Your task to perform on an android device: install app "DoorDash - Food Delivery" Image 0: 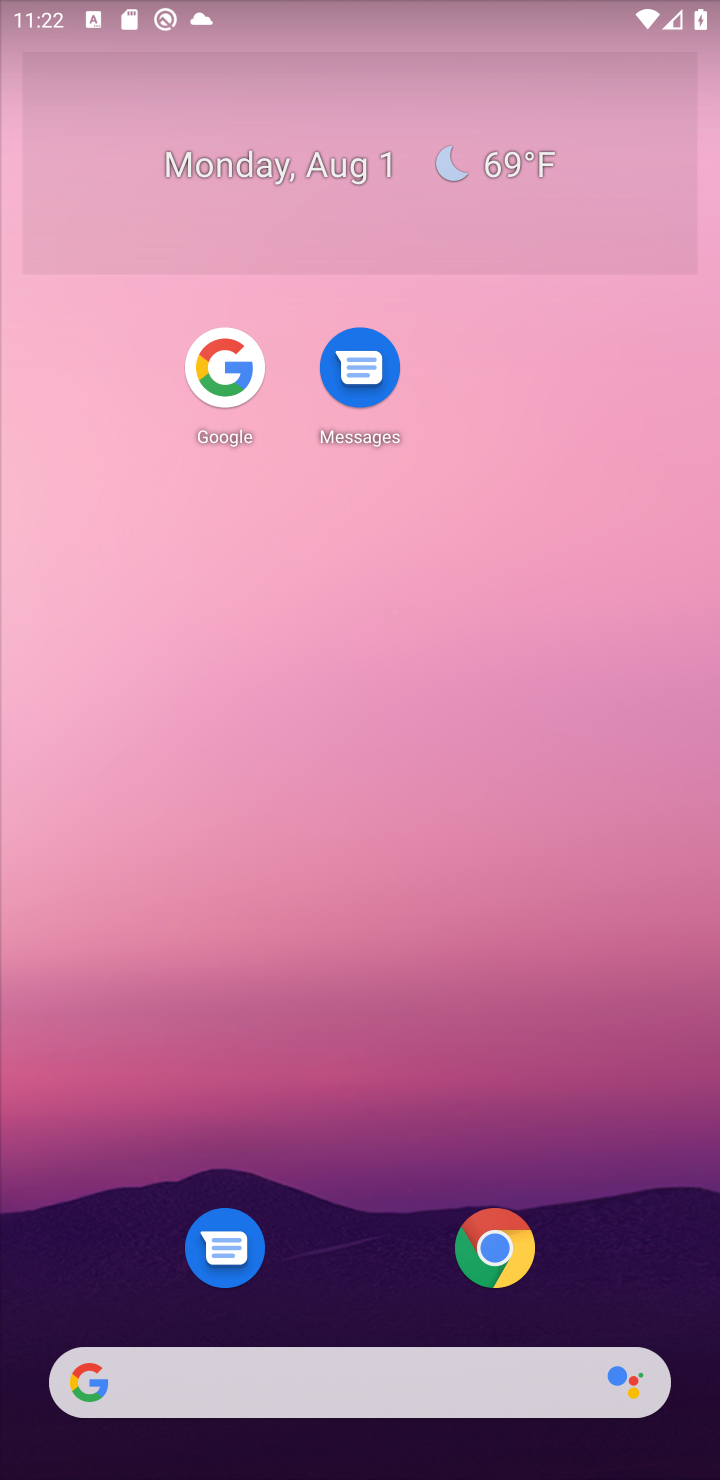
Step 0: drag from (399, 1147) to (600, 371)
Your task to perform on an android device: install app "DoorDash - Food Delivery" Image 1: 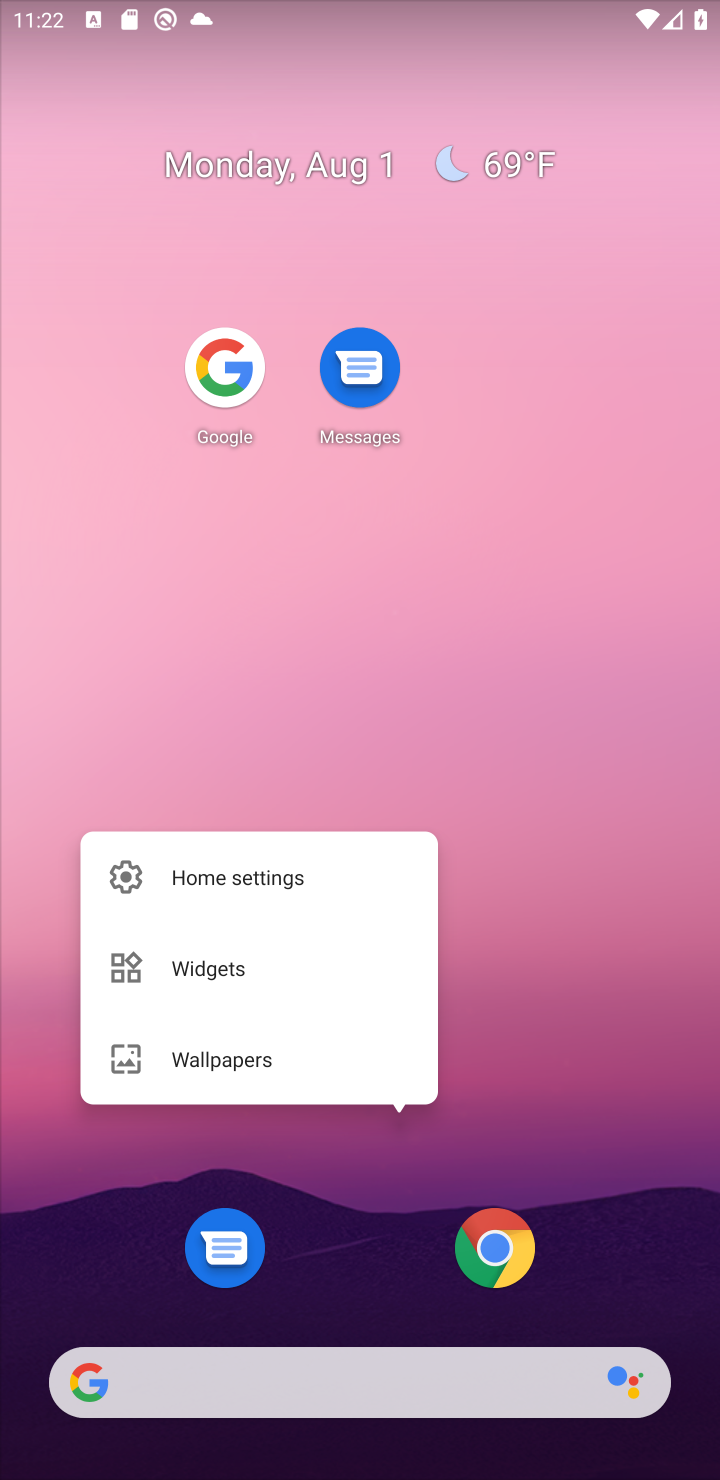
Step 1: click (531, 973)
Your task to perform on an android device: install app "DoorDash - Food Delivery" Image 2: 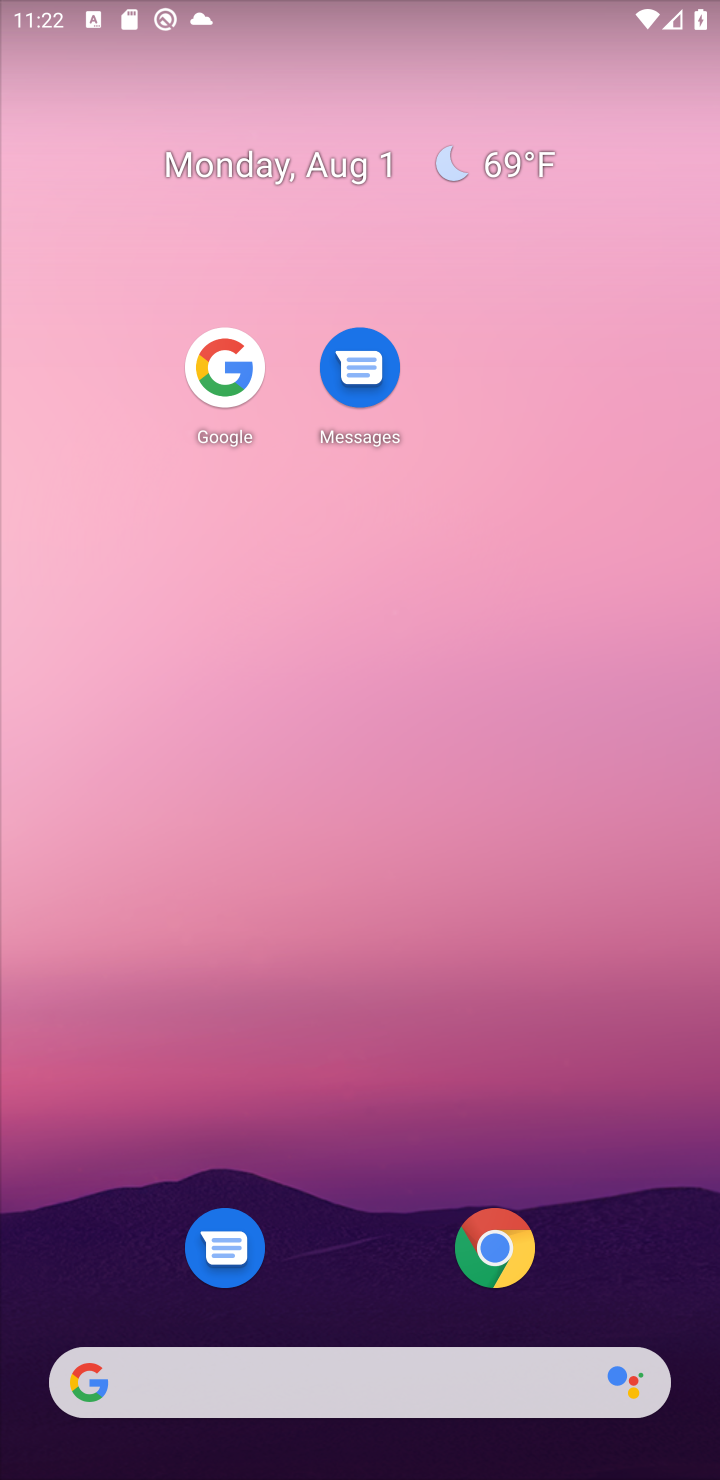
Step 2: drag from (353, 1120) to (367, 295)
Your task to perform on an android device: install app "DoorDash - Food Delivery" Image 3: 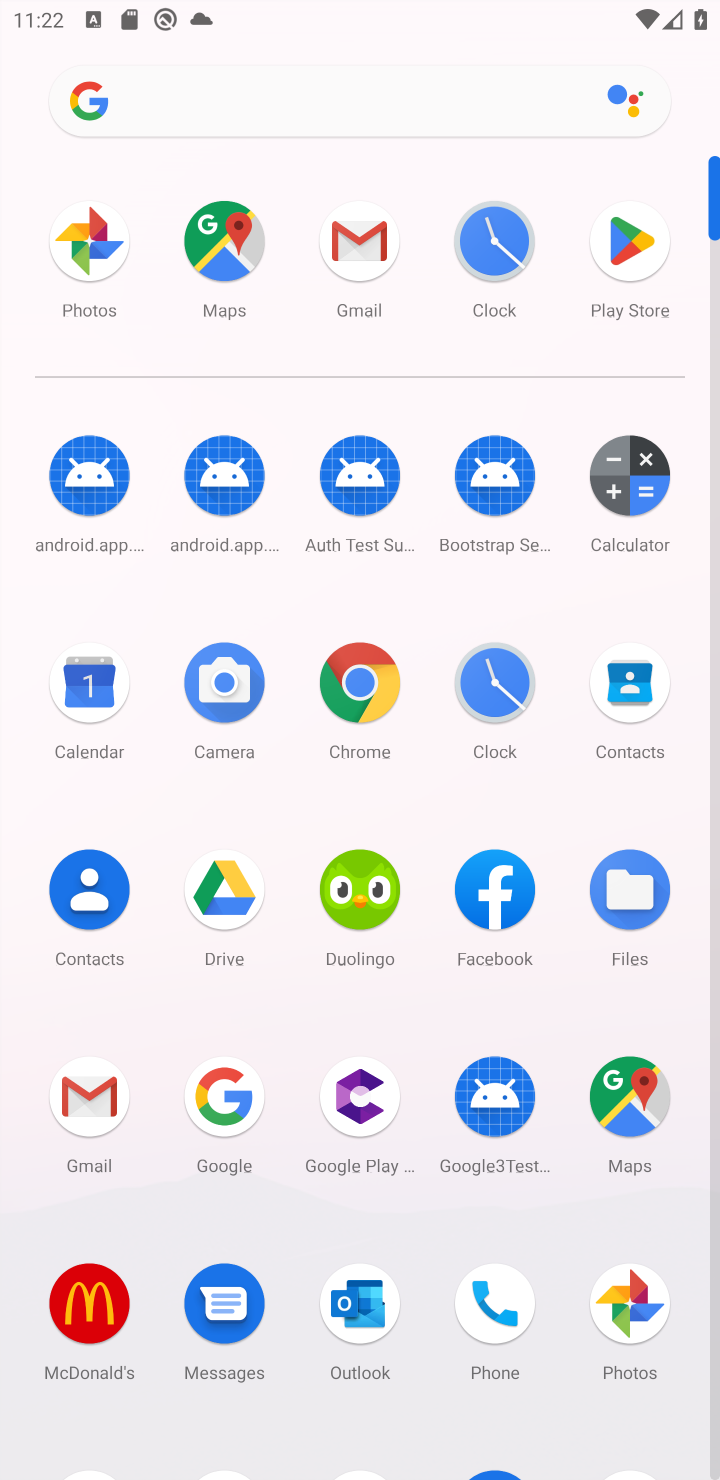
Step 3: drag from (282, 1247) to (310, 510)
Your task to perform on an android device: install app "DoorDash - Food Delivery" Image 4: 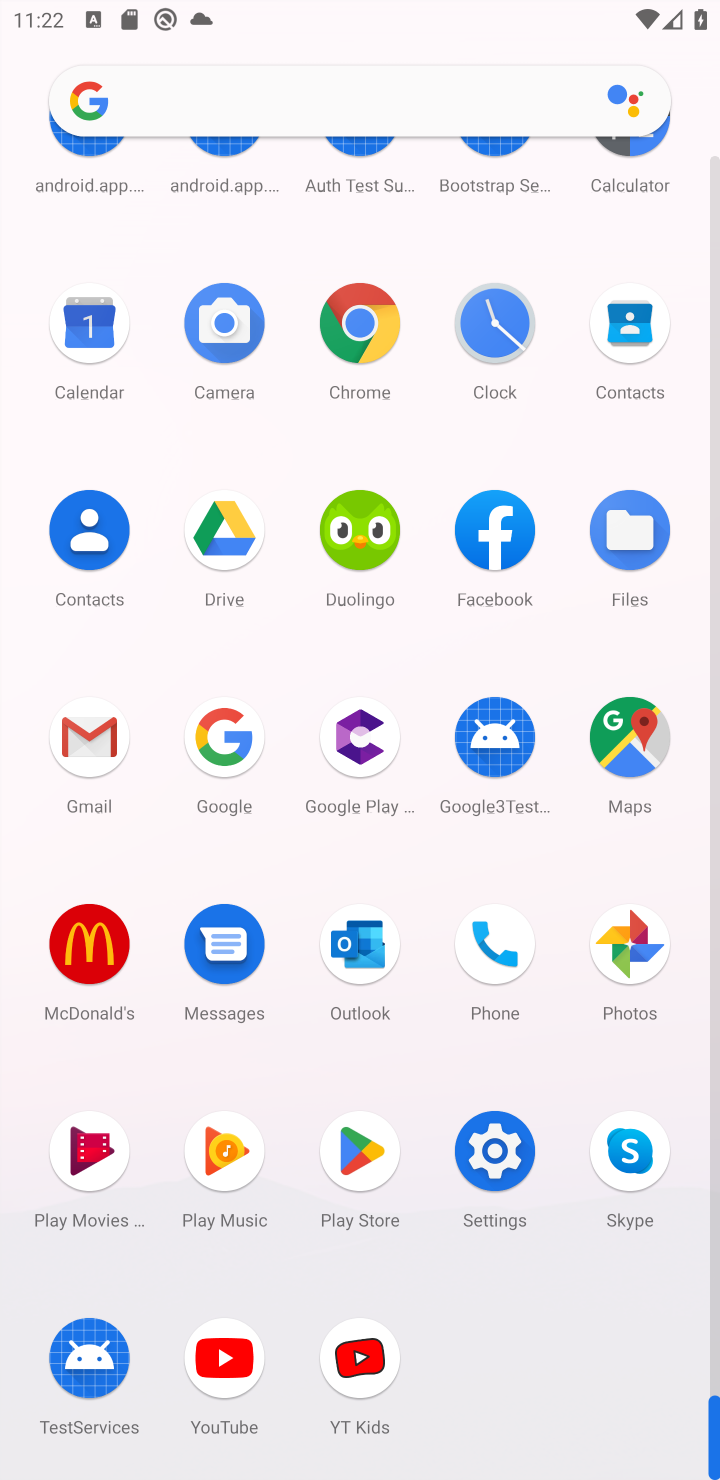
Step 4: click (355, 1154)
Your task to perform on an android device: install app "DoorDash - Food Delivery" Image 5: 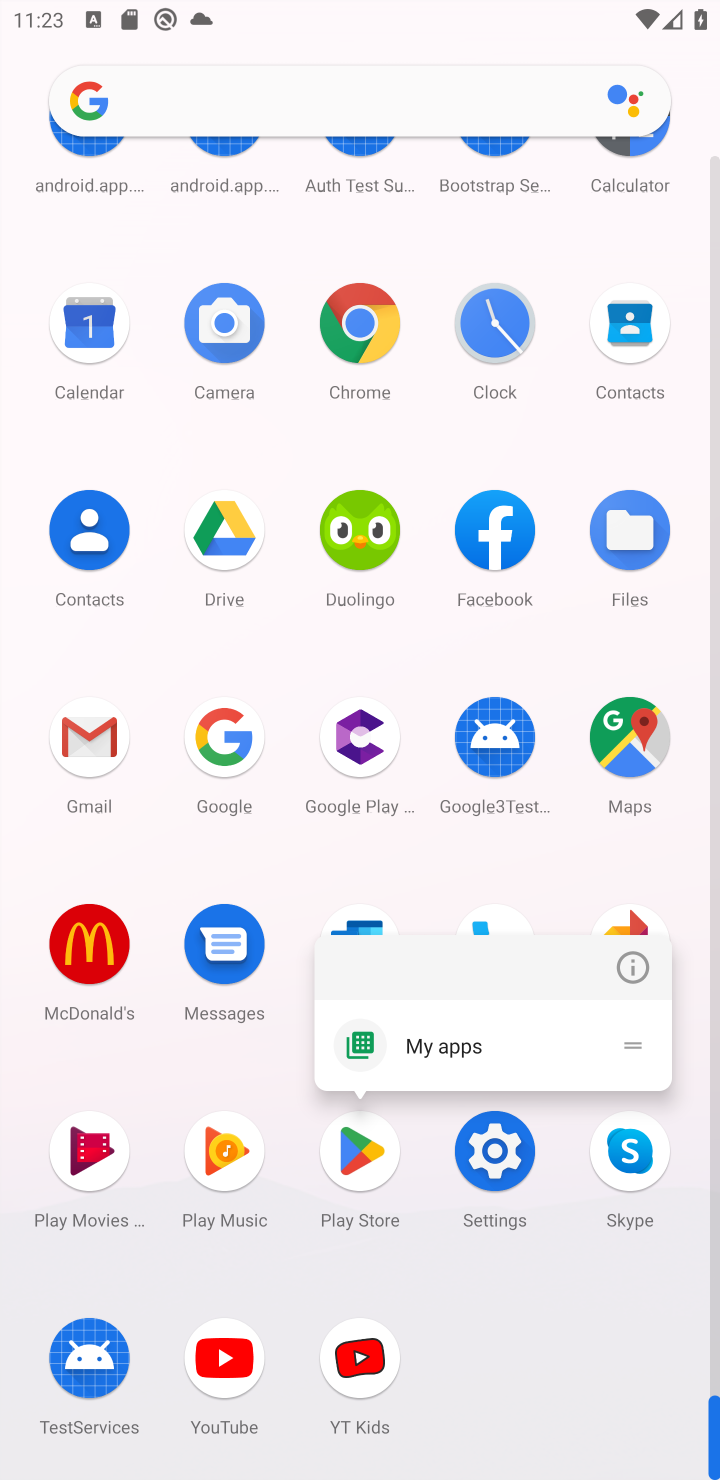
Step 5: click (369, 1142)
Your task to perform on an android device: install app "DoorDash - Food Delivery" Image 6: 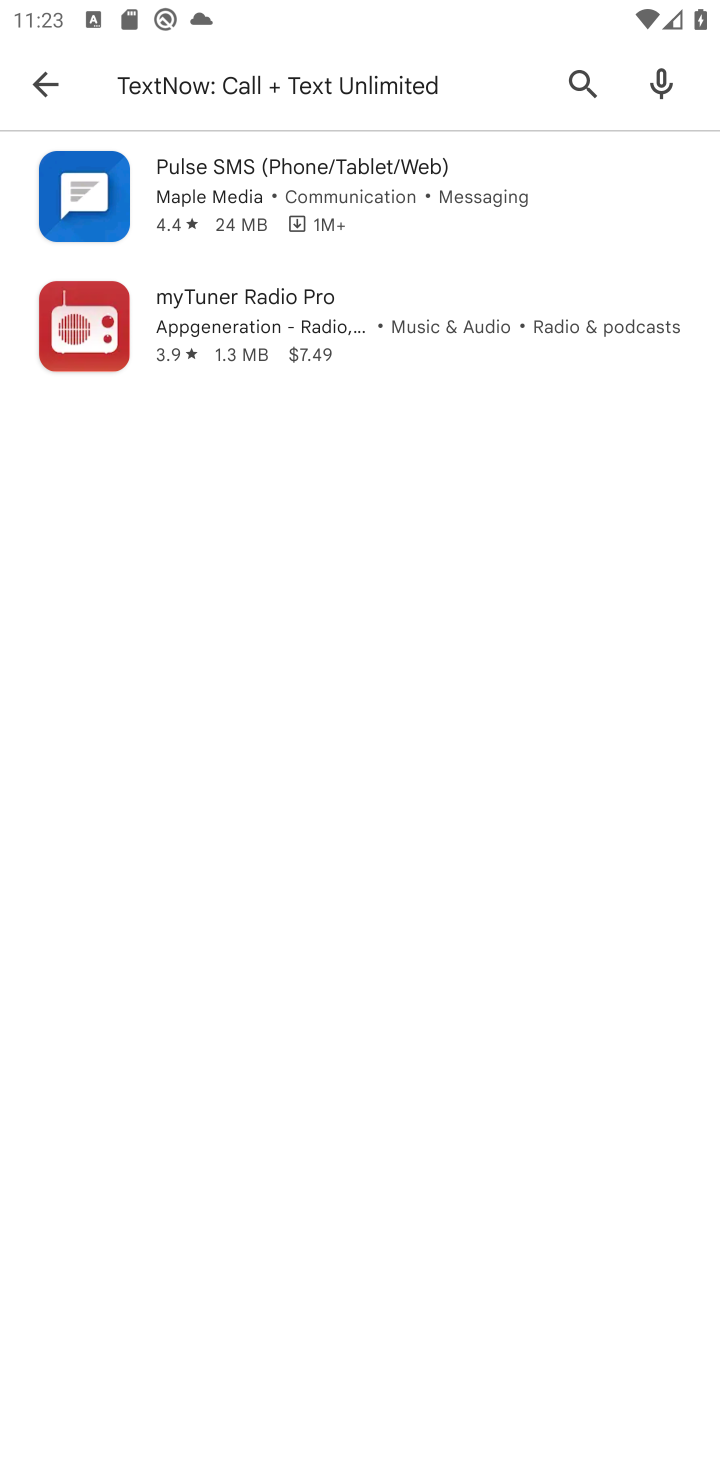
Step 6: click (314, 91)
Your task to perform on an android device: install app "DoorDash - Food Delivery" Image 7: 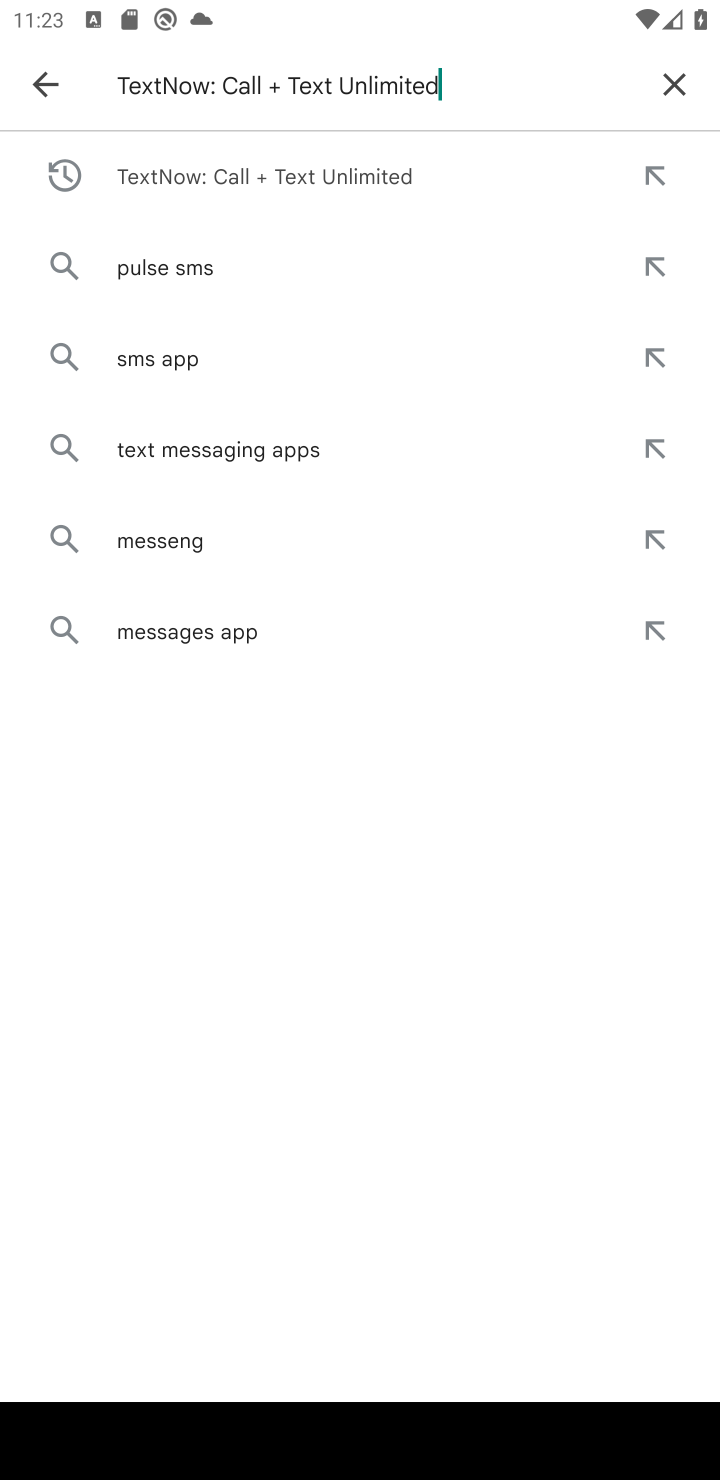
Step 7: click (677, 82)
Your task to perform on an android device: install app "DoorDash - Food Delivery" Image 8: 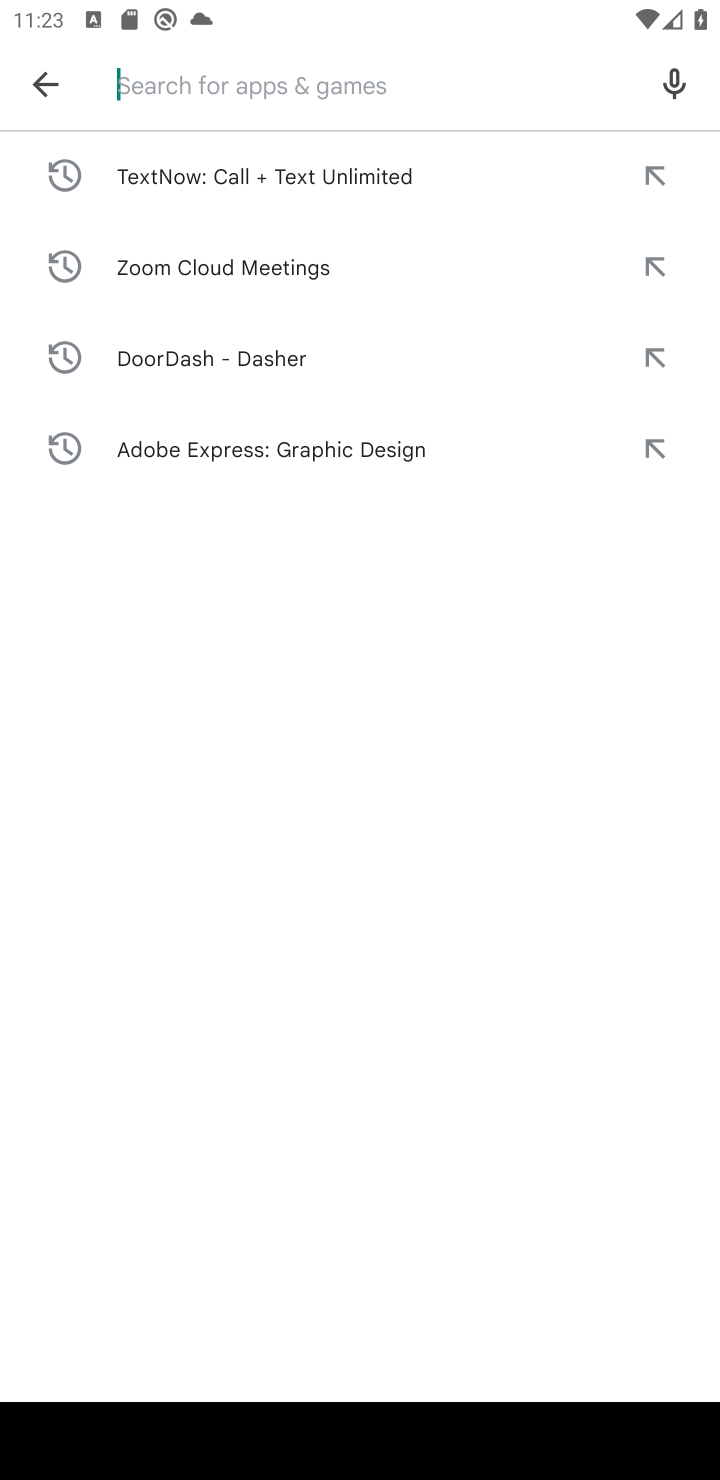
Step 8: type "DoorDash - Food Delivery"
Your task to perform on an android device: install app "DoorDash - Food Delivery" Image 9: 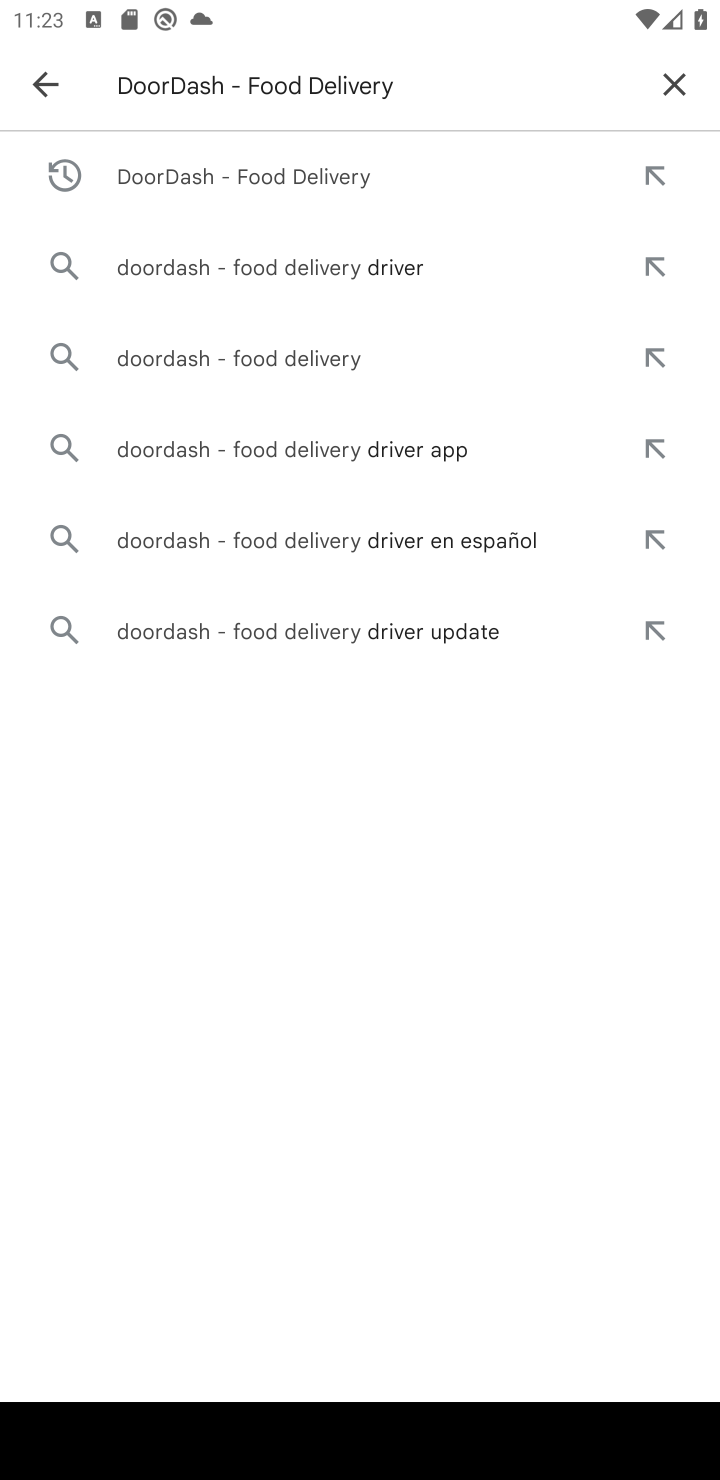
Step 9: press enter
Your task to perform on an android device: install app "DoorDash - Food Delivery" Image 10: 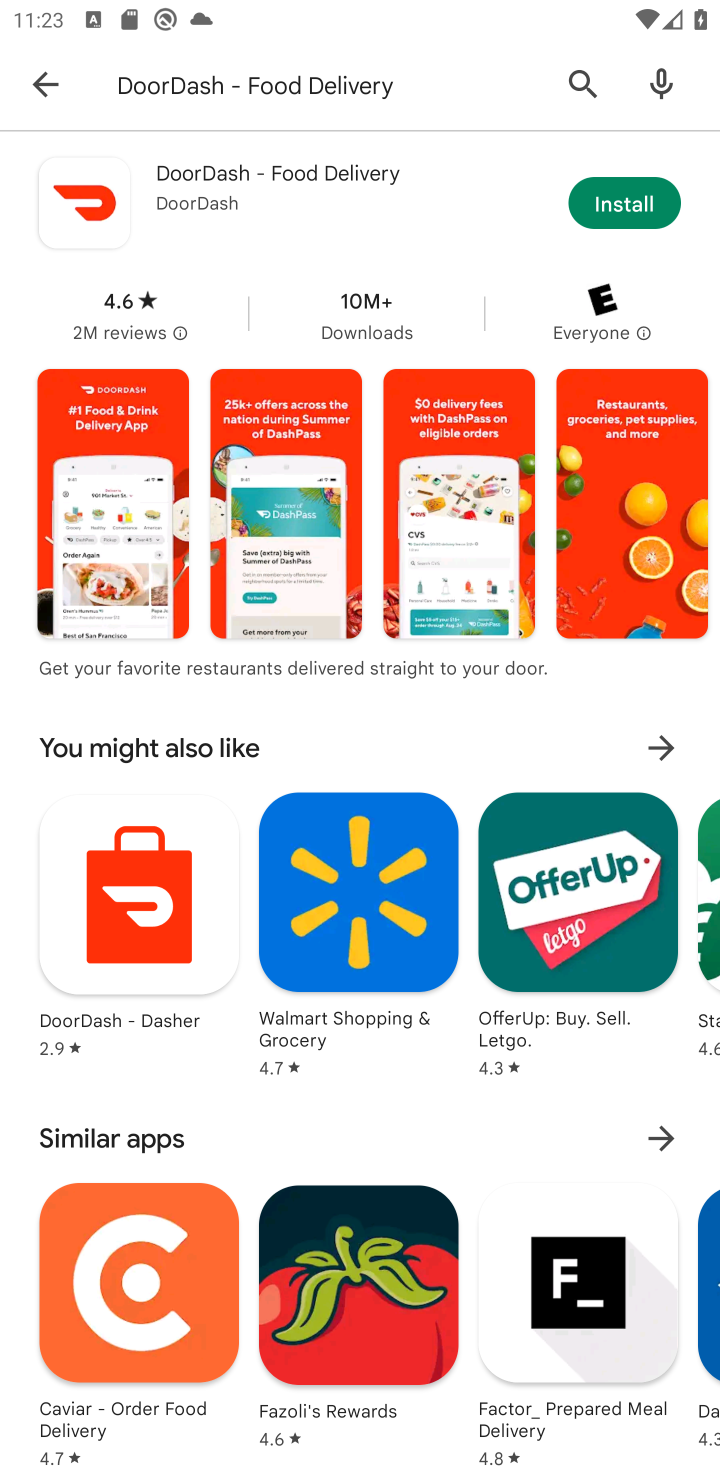
Step 10: click (644, 195)
Your task to perform on an android device: install app "DoorDash - Food Delivery" Image 11: 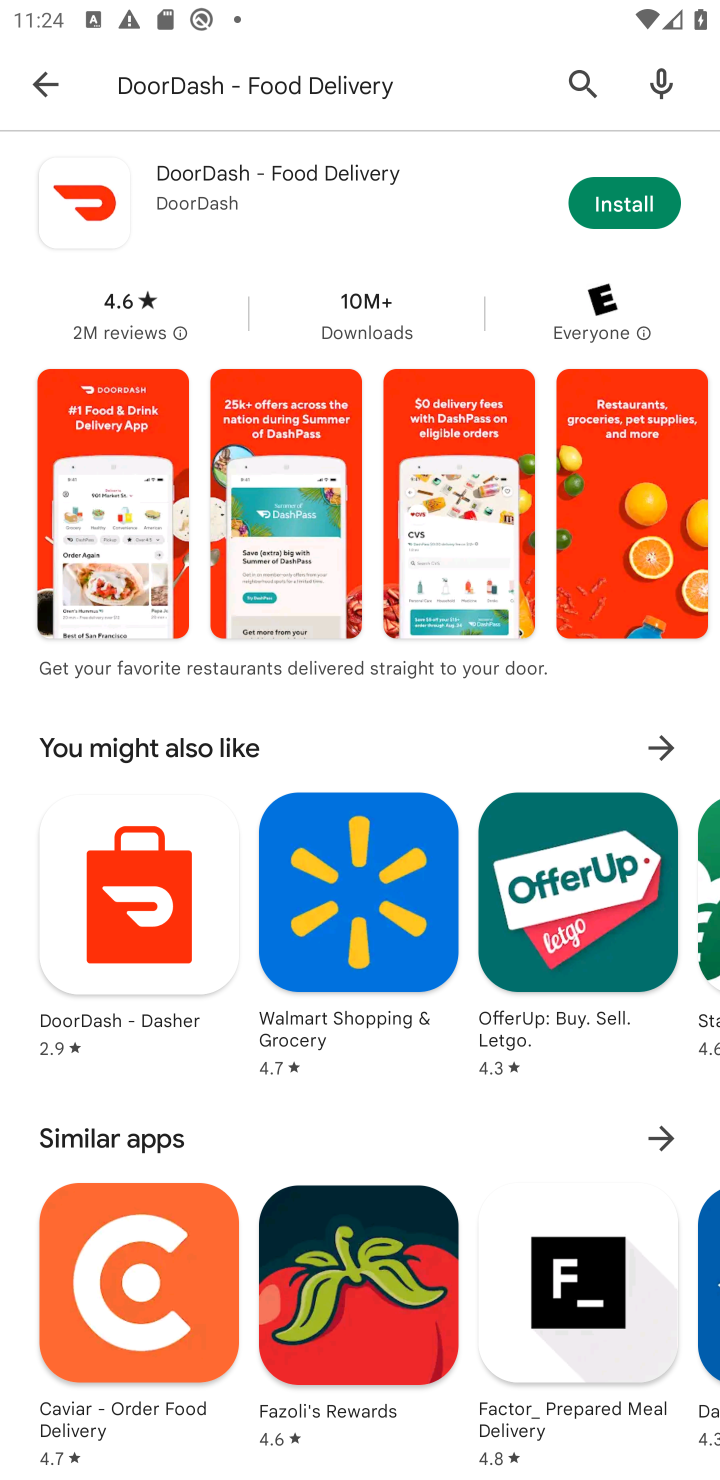
Step 11: click (636, 189)
Your task to perform on an android device: install app "DoorDash - Food Delivery" Image 12: 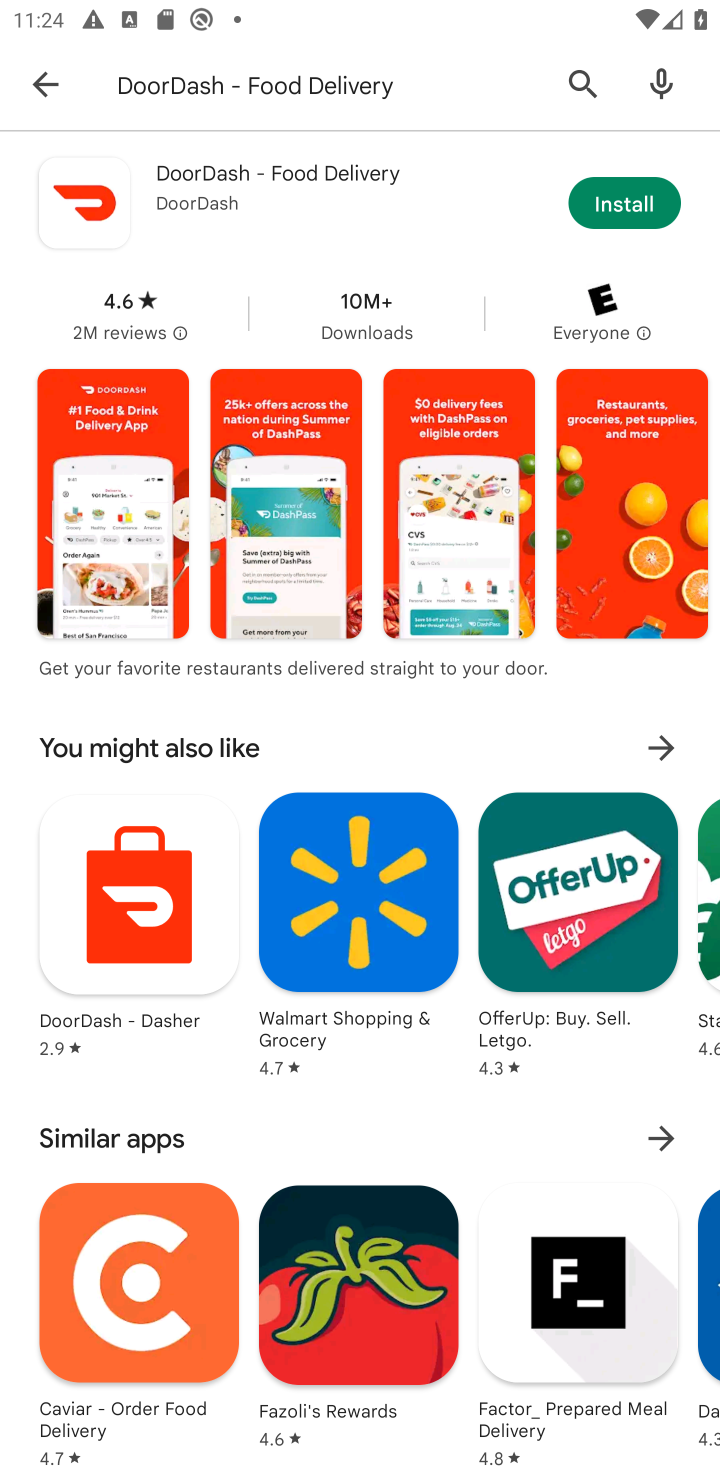
Step 12: click (634, 196)
Your task to perform on an android device: install app "DoorDash - Food Delivery" Image 13: 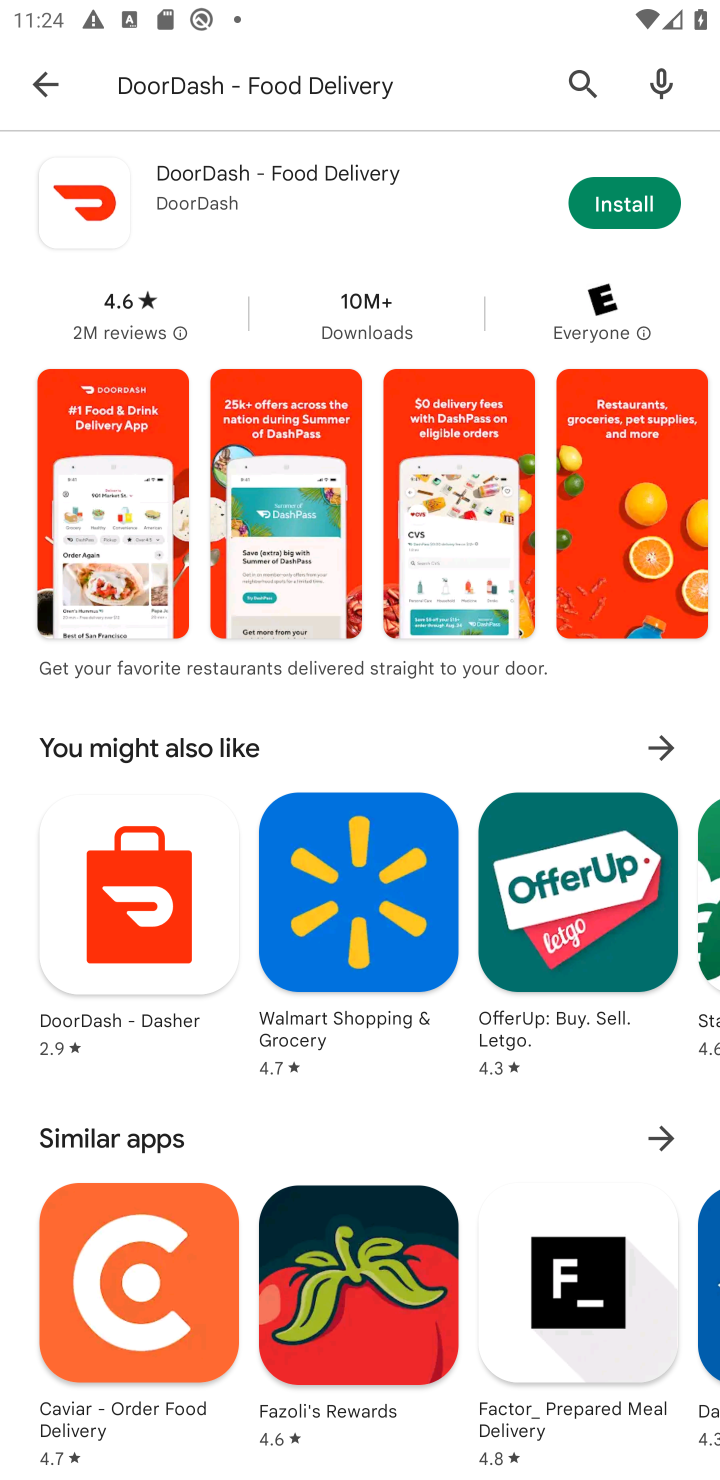
Step 13: click (628, 202)
Your task to perform on an android device: install app "DoorDash - Food Delivery" Image 14: 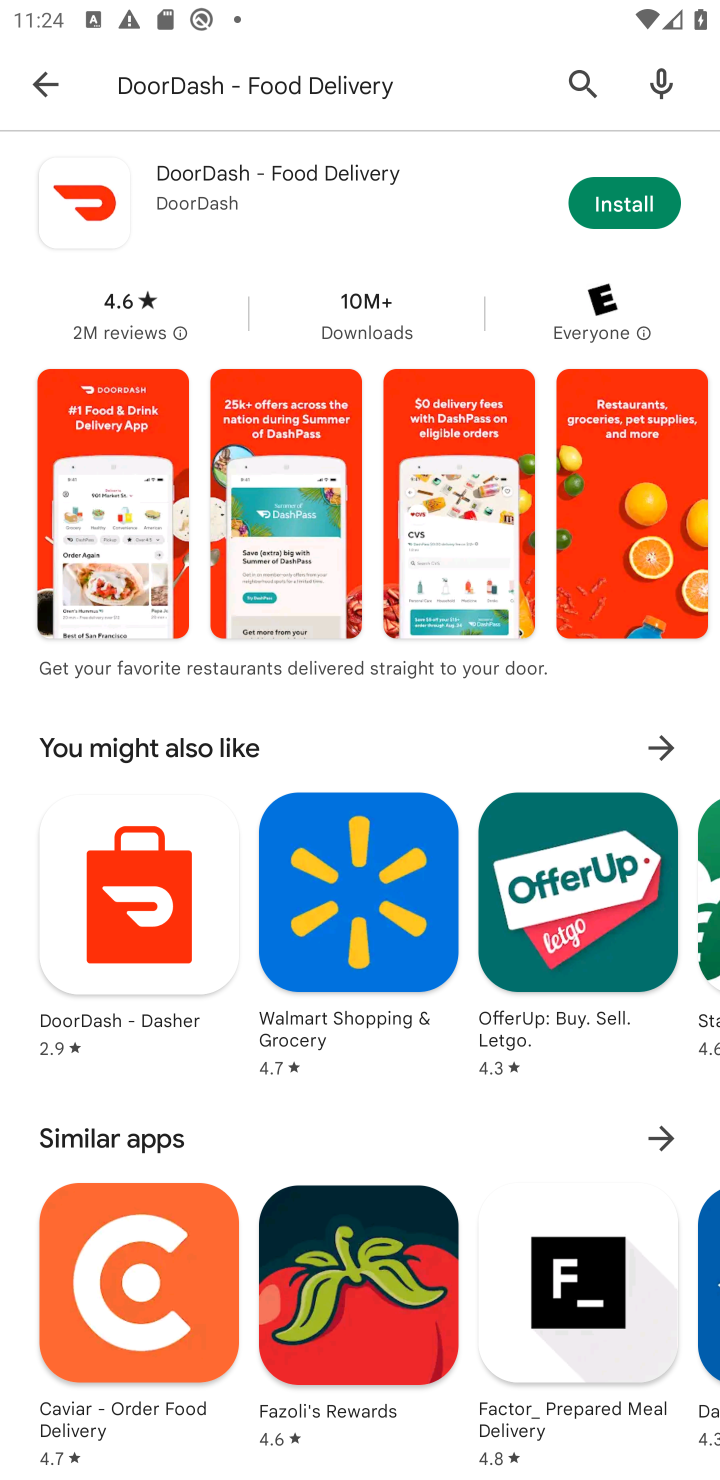
Step 14: click (653, 189)
Your task to perform on an android device: install app "DoorDash - Food Delivery" Image 15: 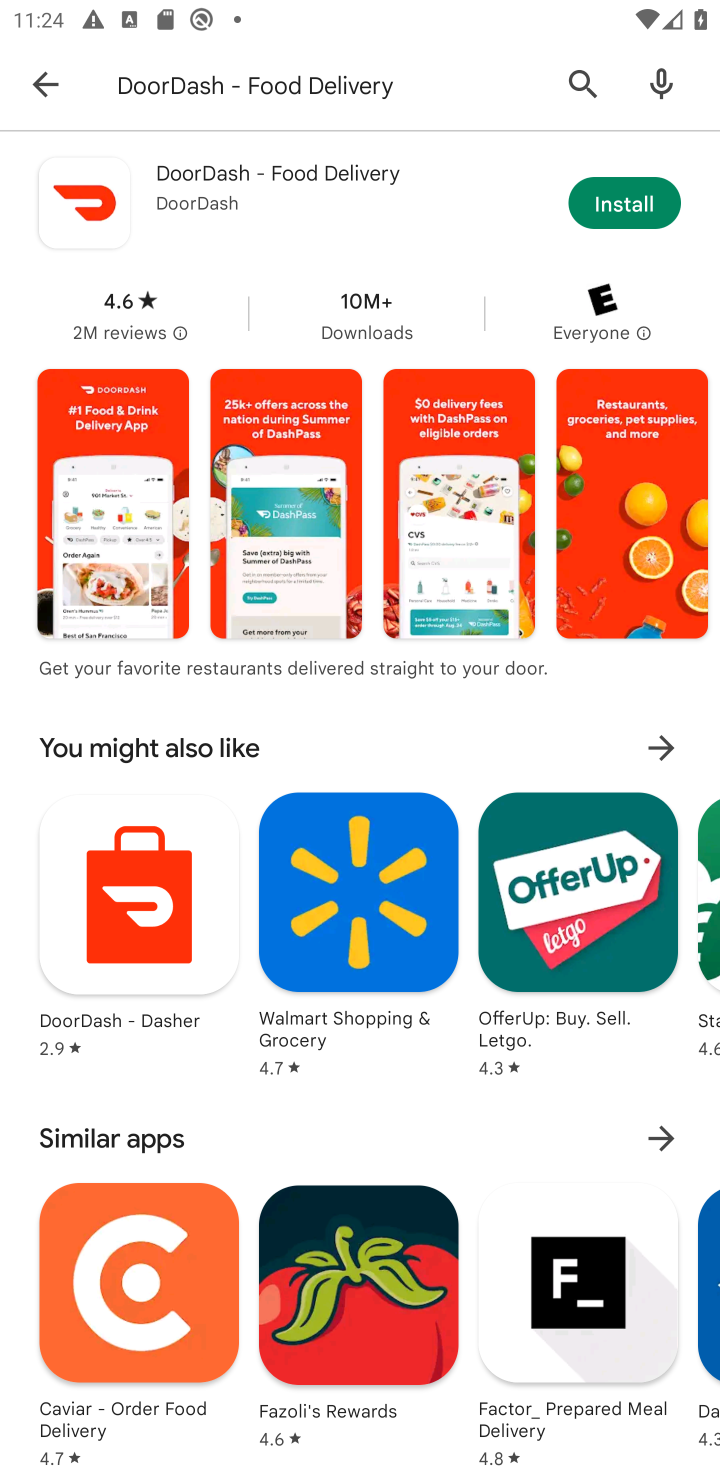
Step 15: task complete